Your task to perform on an android device: What's on my calendar today? Image 0: 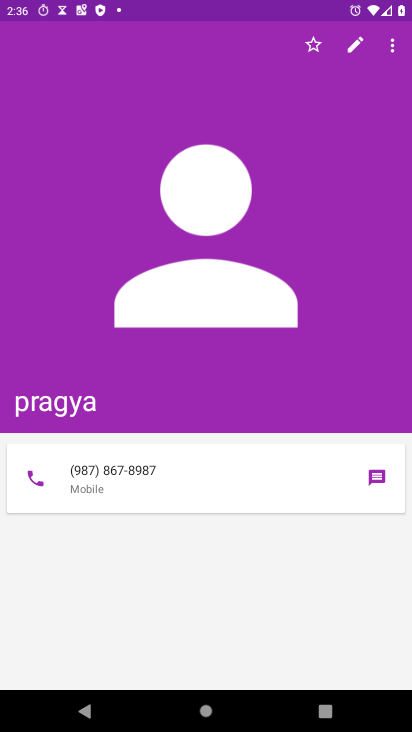
Step 0: press home button
Your task to perform on an android device: What's on my calendar today? Image 1: 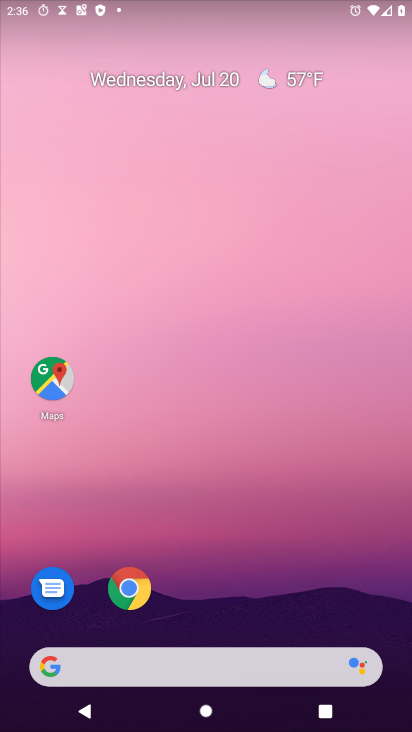
Step 1: drag from (285, 549) to (289, 0)
Your task to perform on an android device: What's on my calendar today? Image 2: 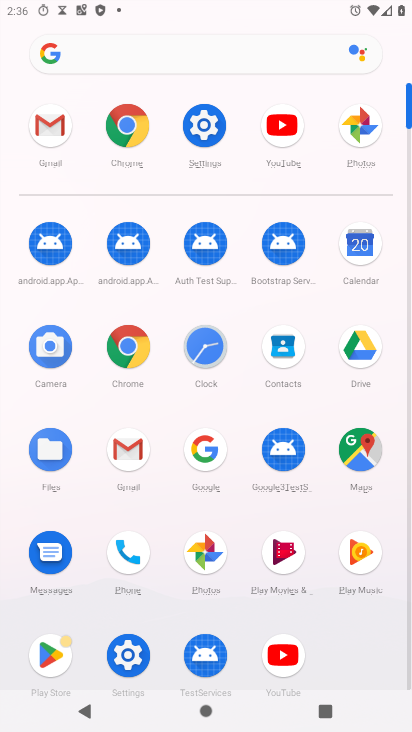
Step 2: click (376, 242)
Your task to perform on an android device: What's on my calendar today? Image 3: 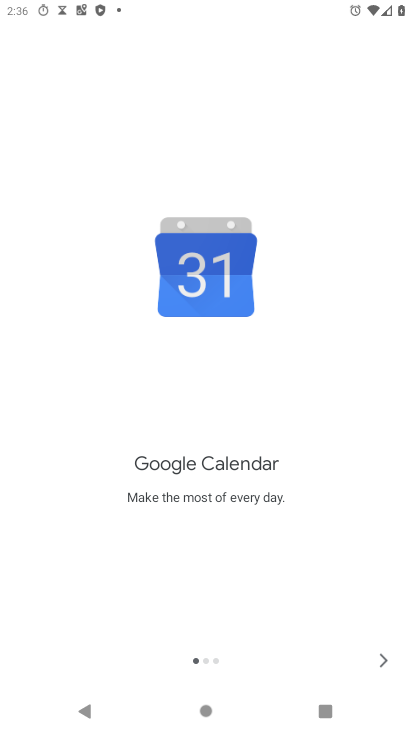
Step 3: click (384, 657)
Your task to perform on an android device: What's on my calendar today? Image 4: 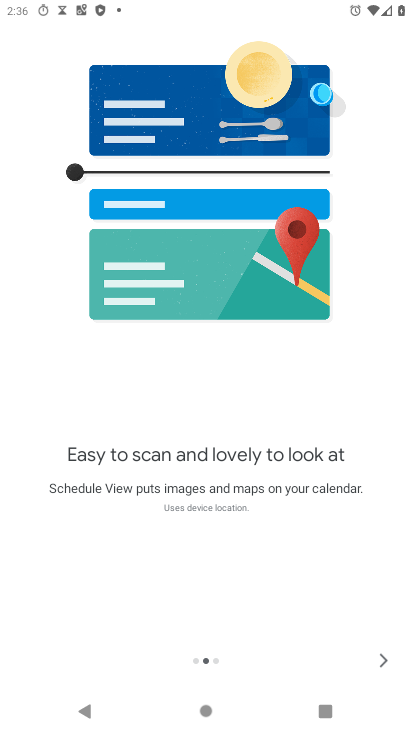
Step 4: click (384, 657)
Your task to perform on an android device: What's on my calendar today? Image 5: 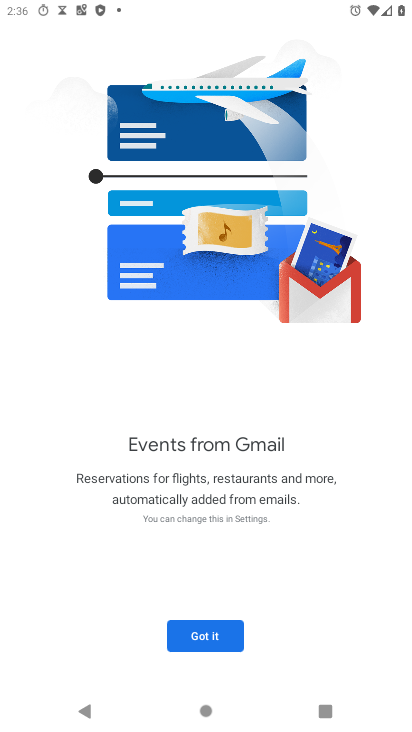
Step 5: click (384, 657)
Your task to perform on an android device: What's on my calendar today? Image 6: 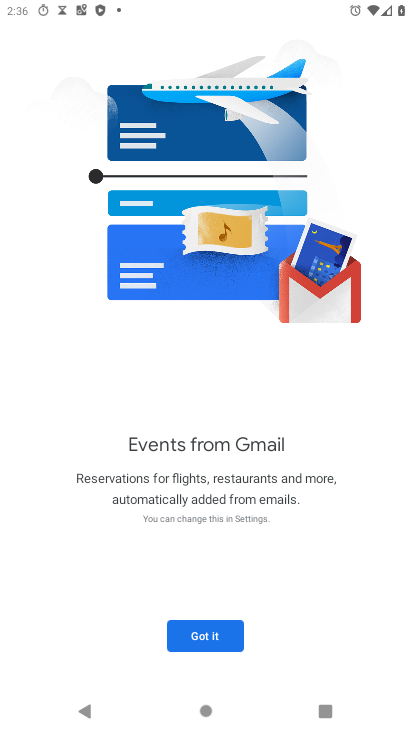
Step 6: click (213, 644)
Your task to perform on an android device: What's on my calendar today? Image 7: 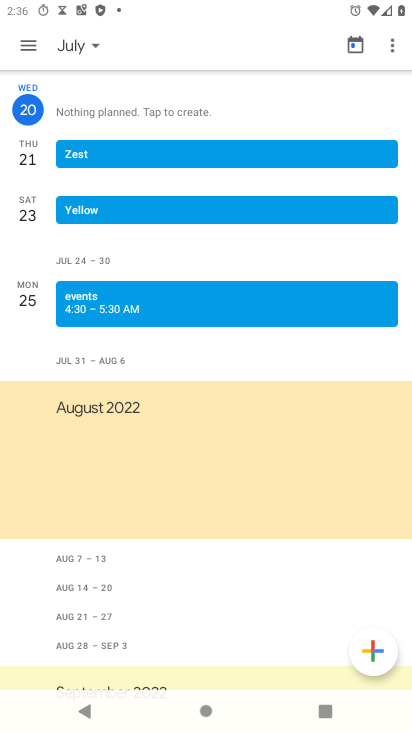
Step 7: click (98, 44)
Your task to perform on an android device: What's on my calendar today? Image 8: 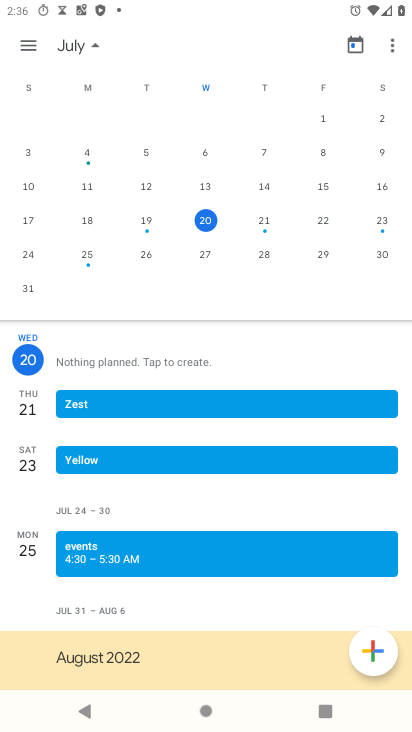
Step 8: click (205, 216)
Your task to perform on an android device: What's on my calendar today? Image 9: 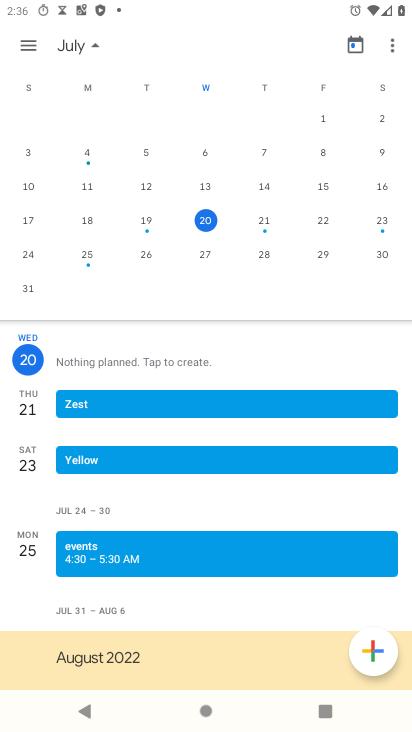
Step 9: task complete